Your task to perform on an android device: Open Youtube and go to the subscriptions tab Image 0: 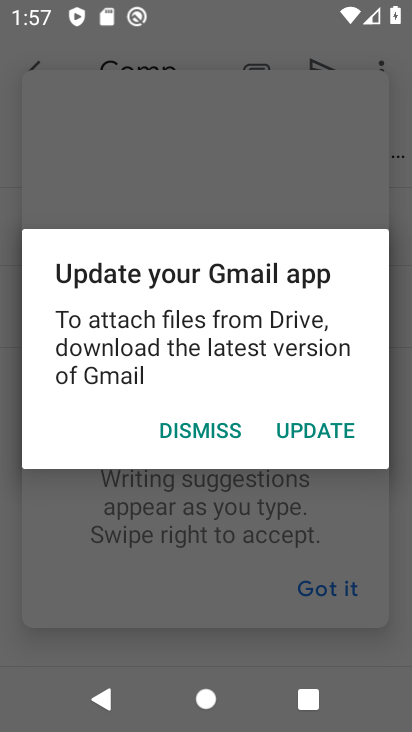
Step 0: press home button
Your task to perform on an android device: Open Youtube and go to the subscriptions tab Image 1: 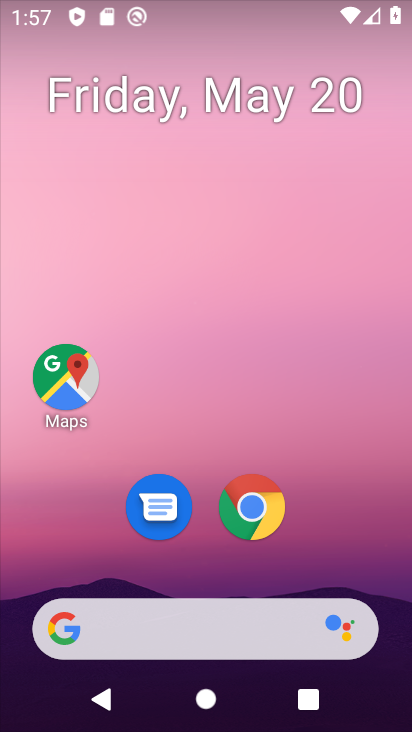
Step 1: drag from (192, 564) to (262, 118)
Your task to perform on an android device: Open Youtube and go to the subscriptions tab Image 2: 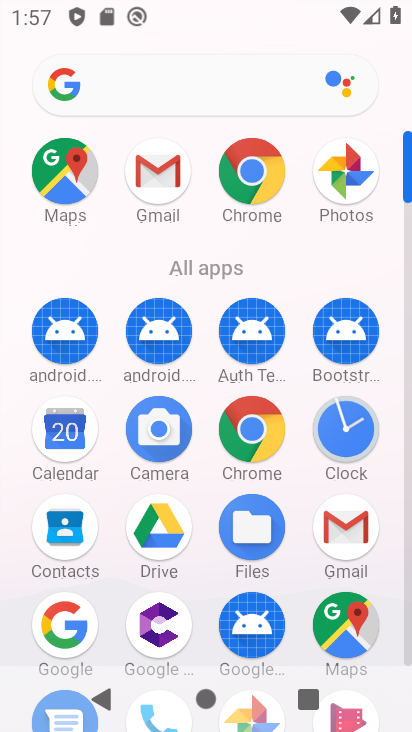
Step 2: drag from (199, 631) to (248, 193)
Your task to perform on an android device: Open Youtube and go to the subscriptions tab Image 3: 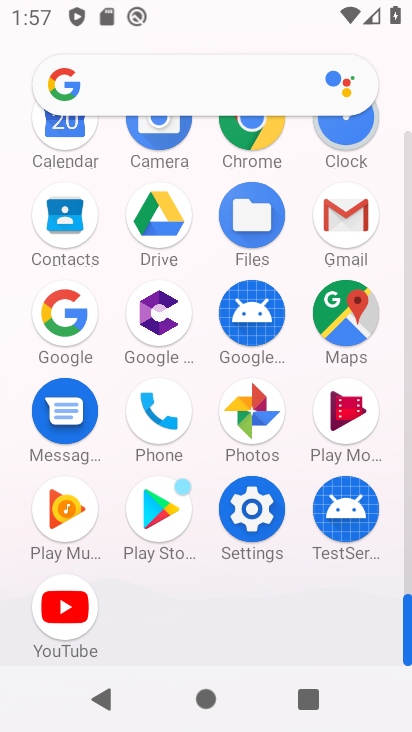
Step 3: click (63, 626)
Your task to perform on an android device: Open Youtube and go to the subscriptions tab Image 4: 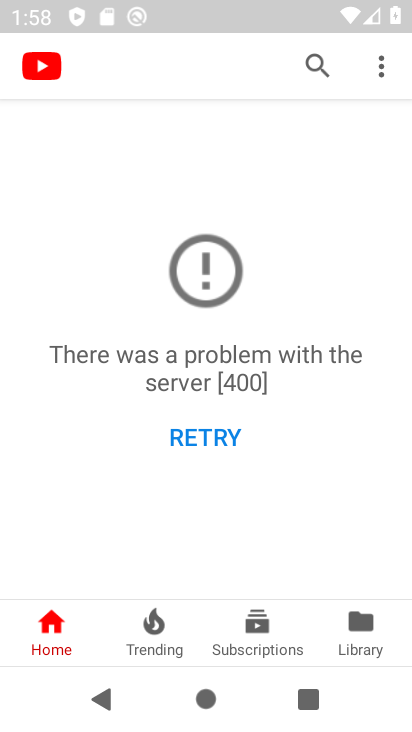
Step 4: click (255, 629)
Your task to perform on an android device: Open Youtube and go to the subscriptions tab Image 5: 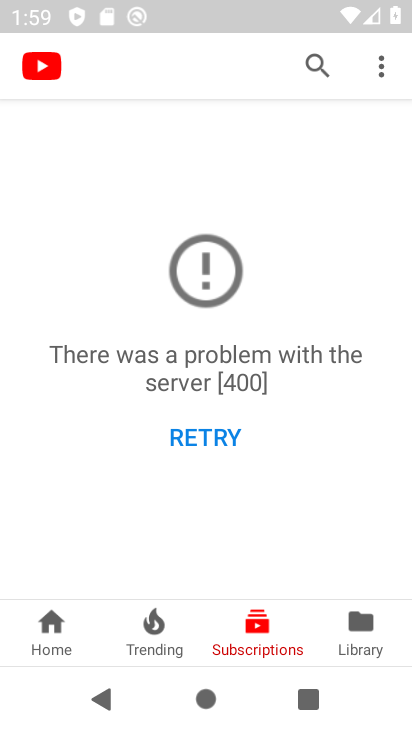
Step 5: task complete